Your task to perform on an android device: What's on my calendar tomorrow? Image 0: 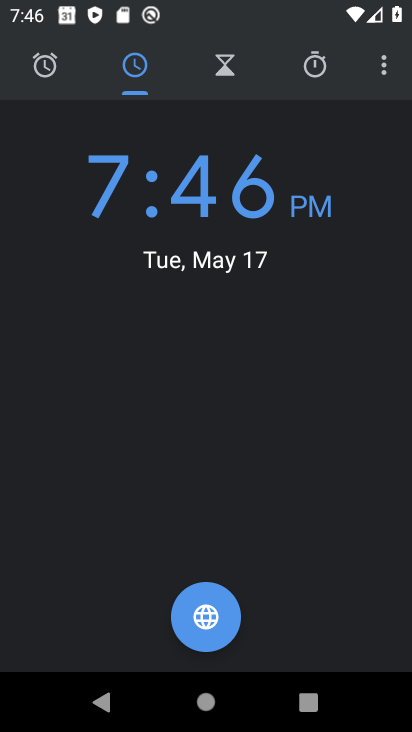
Step 0: press home button
Your task to perform on an android device: What's on my calendar tomorrow? Image 1: 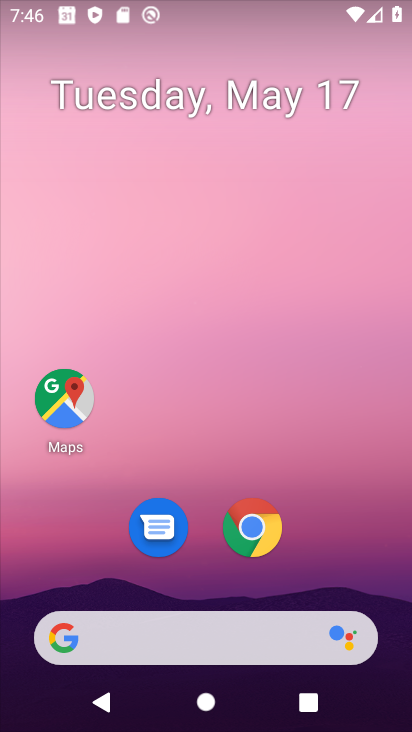
Step 1: drag from (251, 674) to (267, 325)
Your task to perform on an android device: What's on my calendar tomorrow? Image 2: 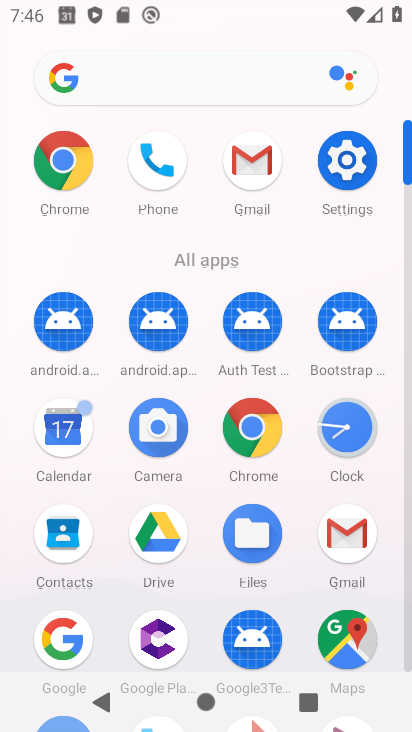
Step 2: click (73, 420)
Your task to perform on an android device: What's on my calendar tomorrow? Image 3: 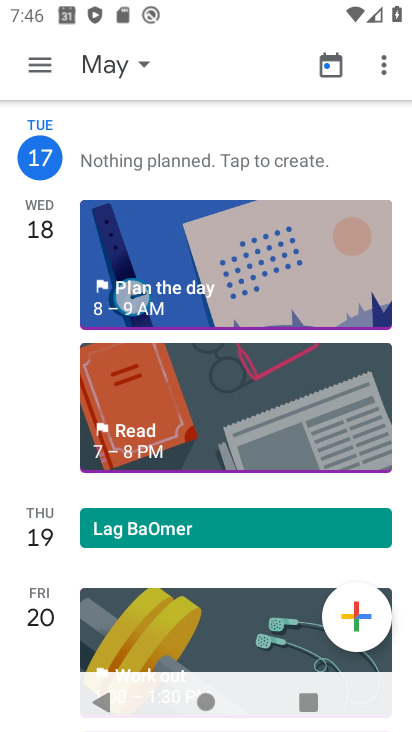
Step 3: task complete